Your task to perform on an android device: Clear all items from cart on target.com. Image 0: 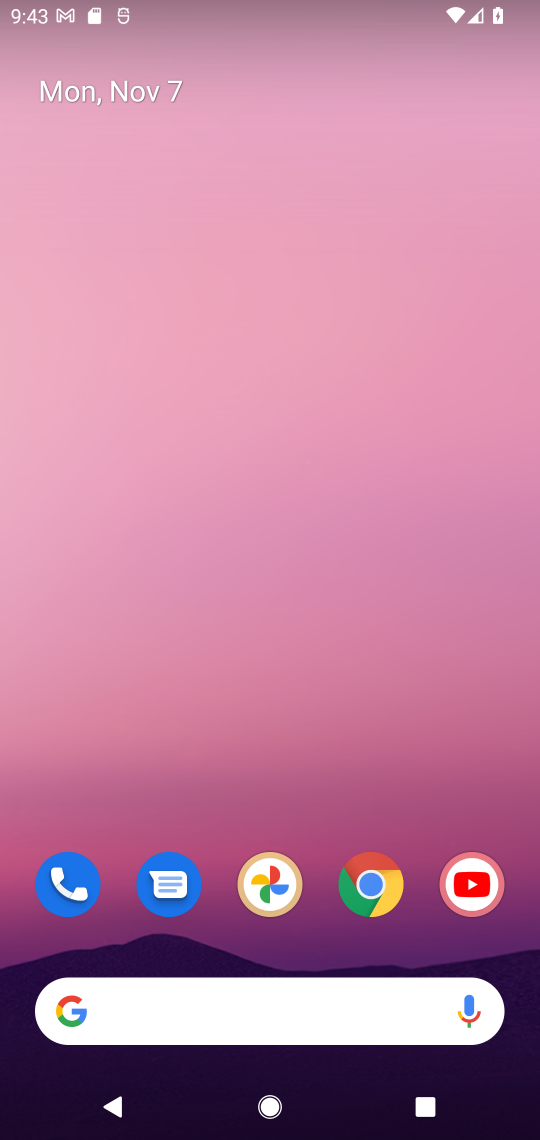
Step 0: click (379, 888)
Your task to perform on an android device: Clear all items from cart on target.com. Image 1: 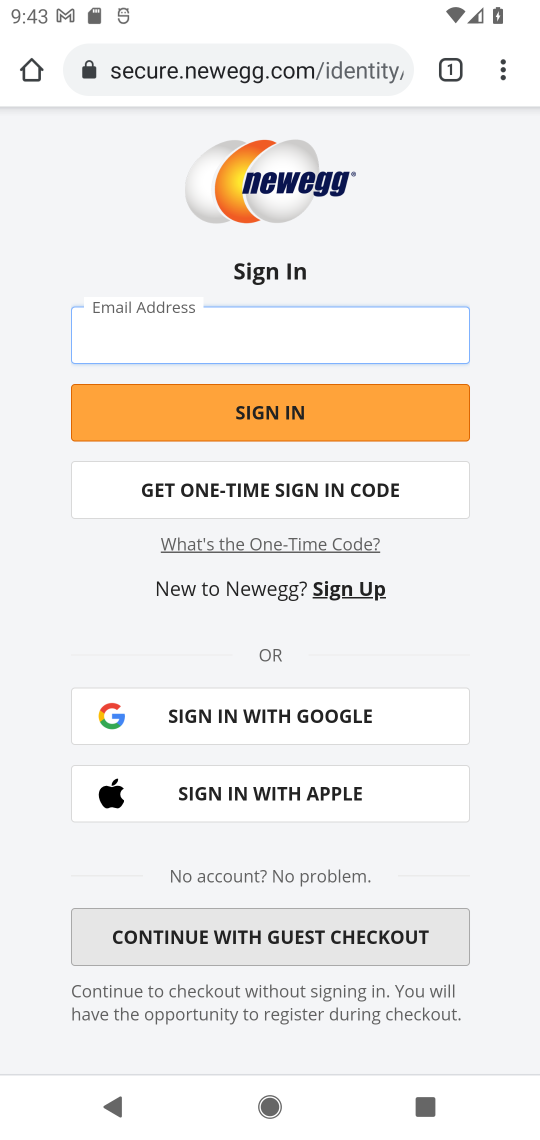
Step 1: click (314, 72)
Your task to perform on an android device: Clear all items from cart on target.com. Image 2: 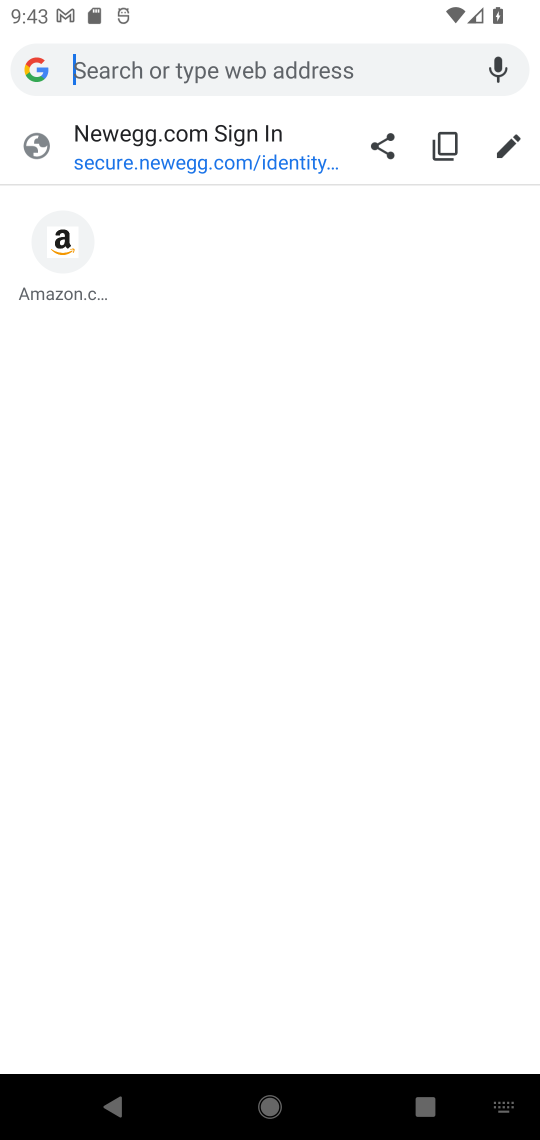
Step 2: type " target.com"
Your task to perform on an android device: Clear all items from cart on target.com. Image 3: 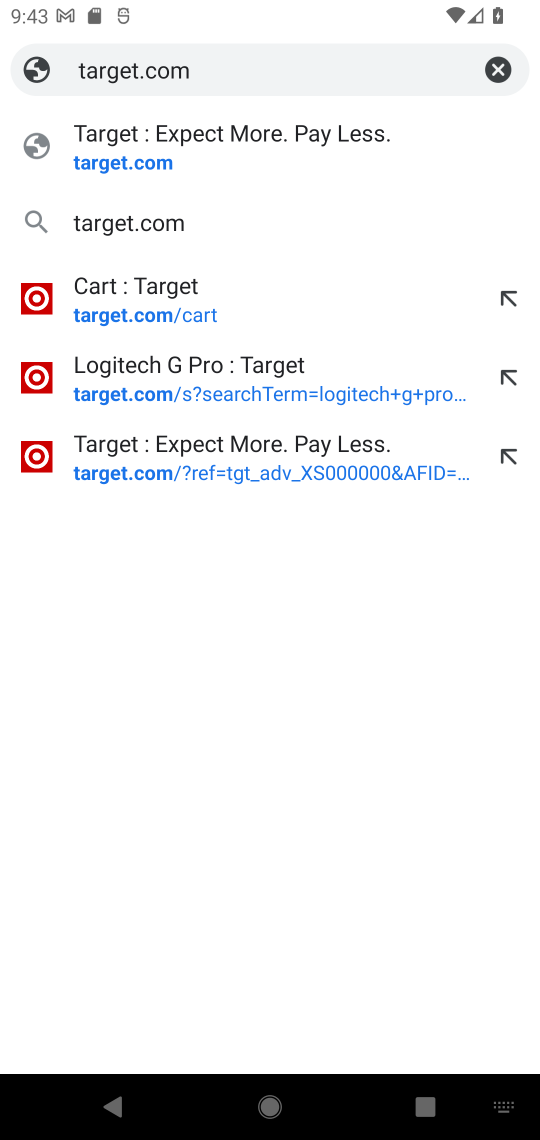
Step 3: click (100, 217)
Your task to perform on an android device: Clear all items from cart on target.com. Image 4: 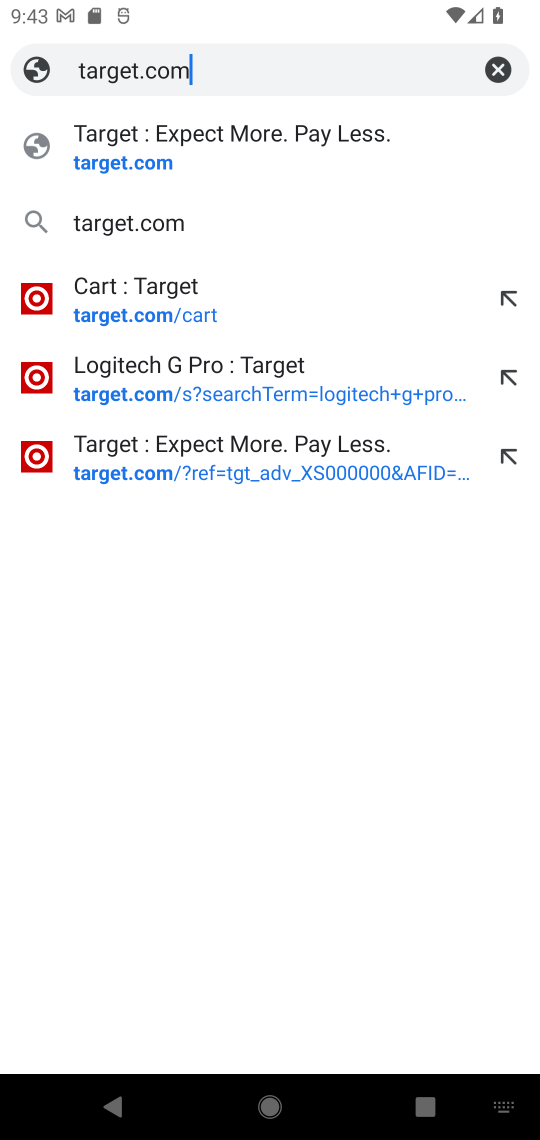
Step 4: click (112, 225)
Your task to perform on an android device: Clear all items from cart on target.com. Image 5: 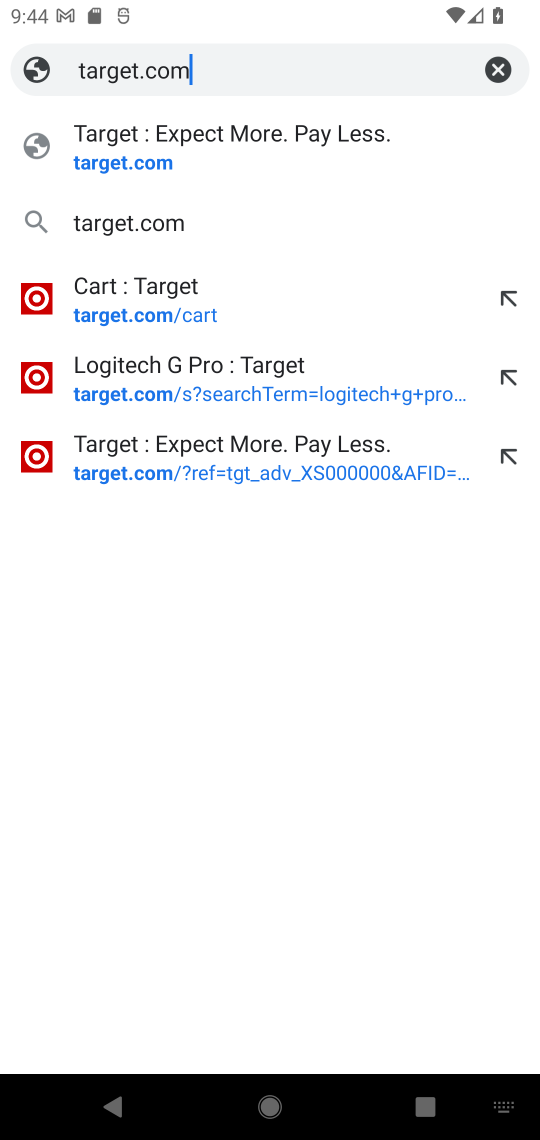
Step 5: click (196, 140)
Your task to perform on an android device: Clear all items from cart on target.com. Image 6: 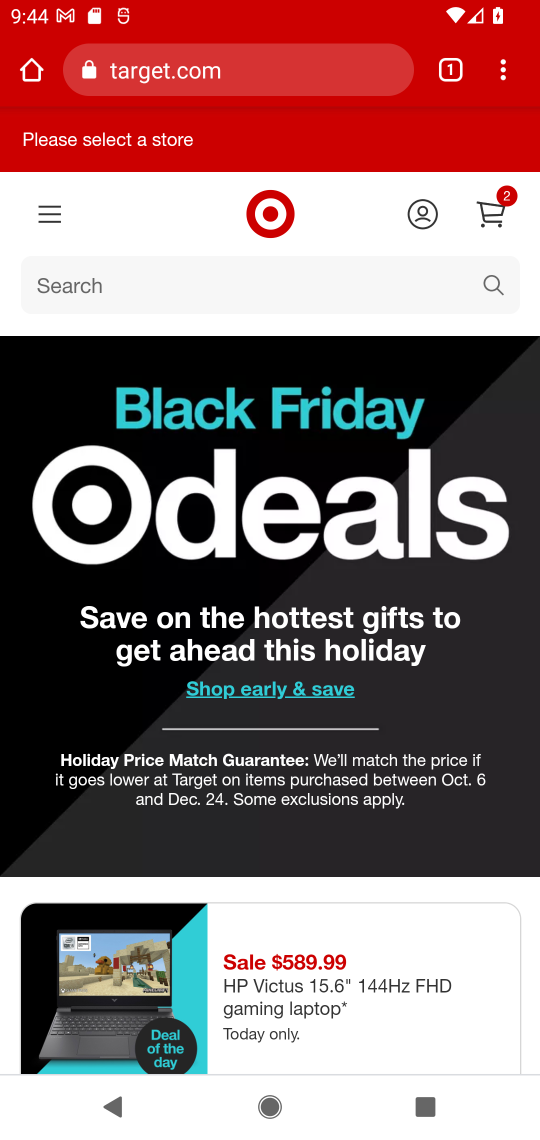
Step 6: click (495, 210)
Your task to perform on an android device: Clear all items from cart on target.com. Image 7: 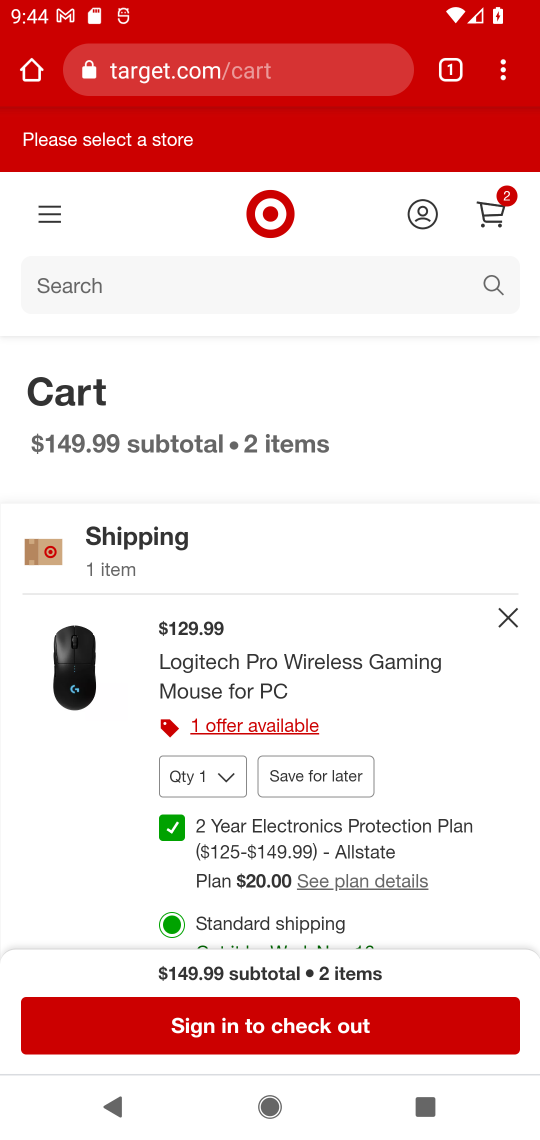
Step 7: click (506, 609)
Your task to perform on an android device: Clear all items from cart on target.com. Image 8: 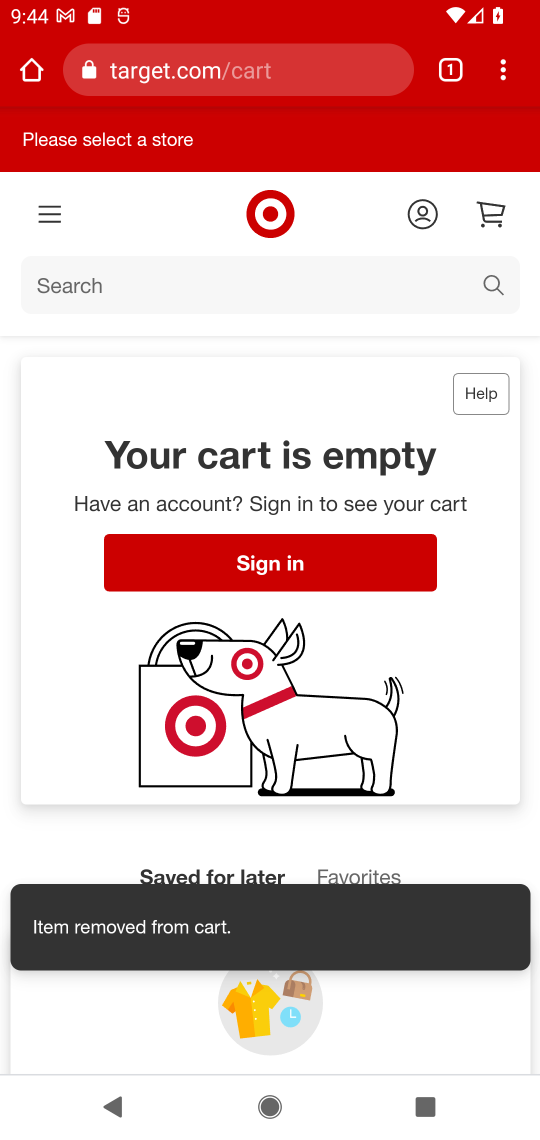
Step 8: task complete